Your task to perform on an android device: Open Google Chrome and open the bookmarks view Image 0: 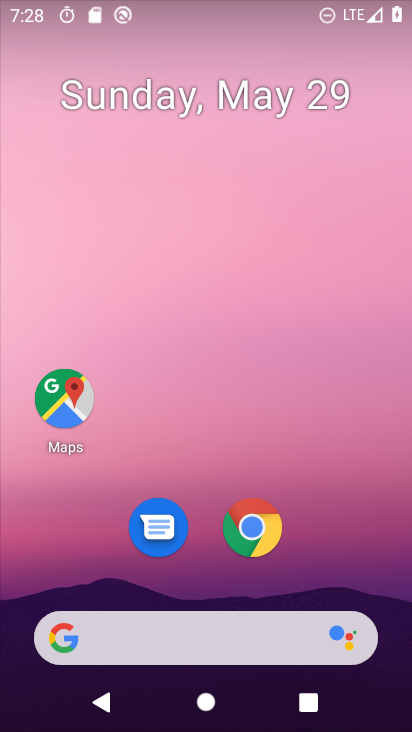
Step 0: drag from (372, 641) to (266, 115)
Your task to perform on an android device: Open Google Chrome and open the bookmarks view Image 1: 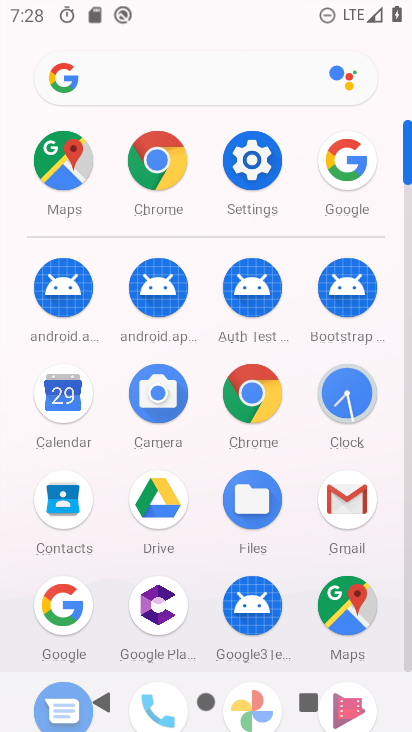
Step 1: click (171, 174)
Your task to perform on an android device: Open Google Chrome and open the bookmarks view Image 2: 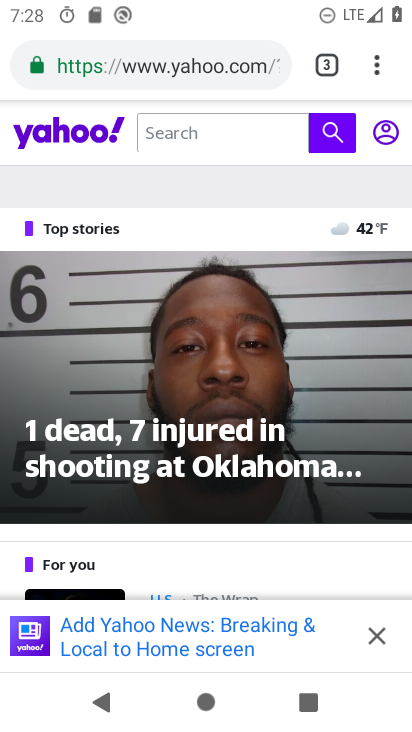
Step 2: press back button
Your task to perform on an android device: Open Google Chrome and open the bookmarks view Image 3: 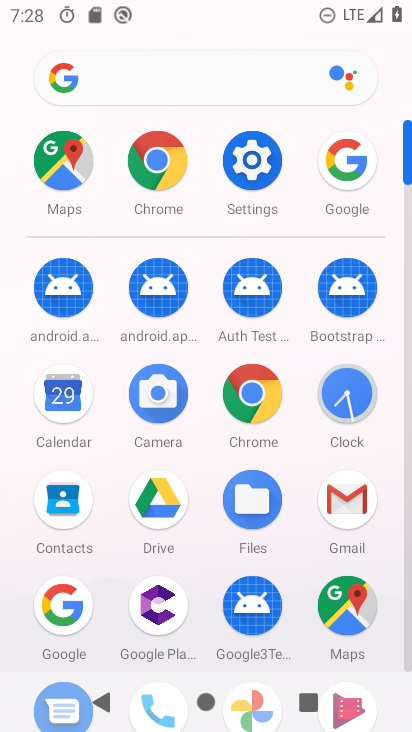
Step 3: click (162, 172)
Your task to perform on an android device: Open Google Chrome and open the bookmarks view Image 4: 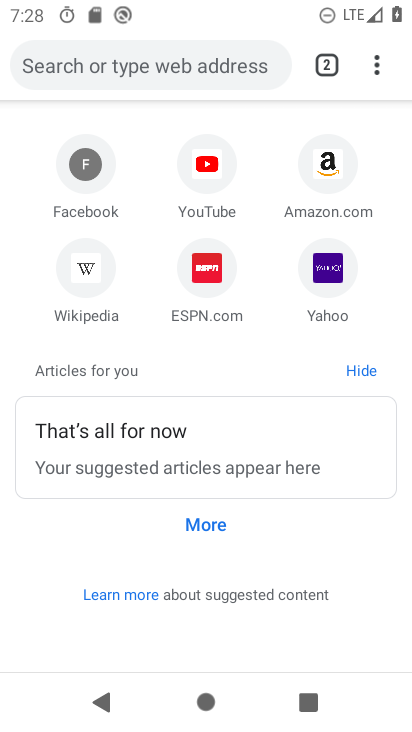
Step 4: click (377, 58)
Your task to perform on an android device: Open Google Chrome and open the bookmarks view Image 5: 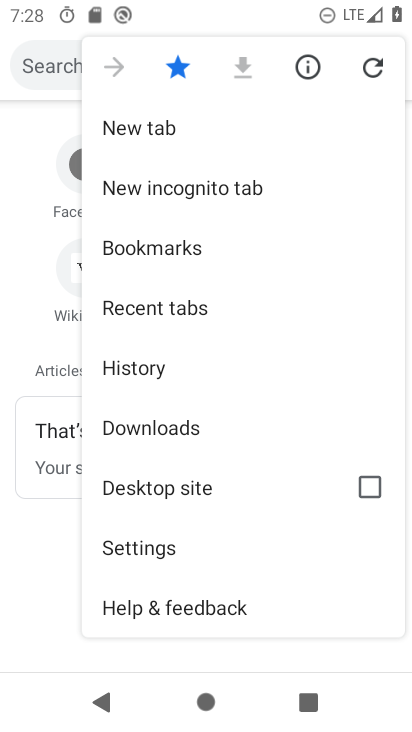
Step 5: click (179, 241)
Your task to perform on an android device: Open Google Chrome and open the bookmarks view Image 6: 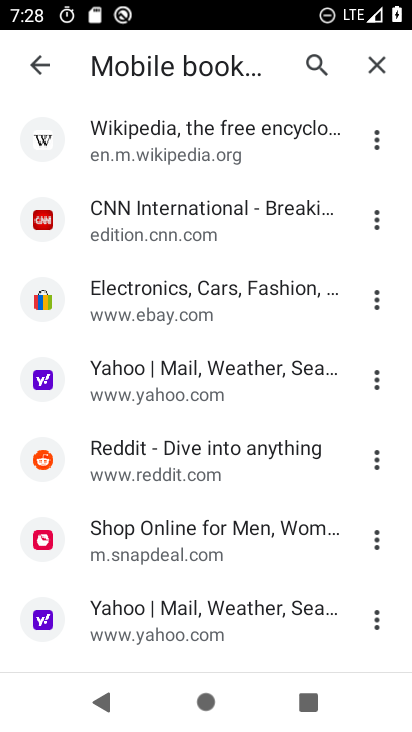
Step 6: task complete